Your task to perform on an android device: set default search engine in the chrome app Image 0: 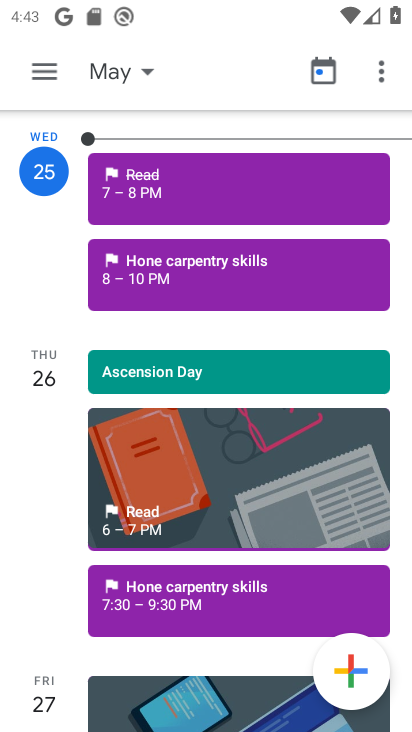
Step 0: press home button
Your task to perform on an android device: set default search engine in the chrome app Image 1: 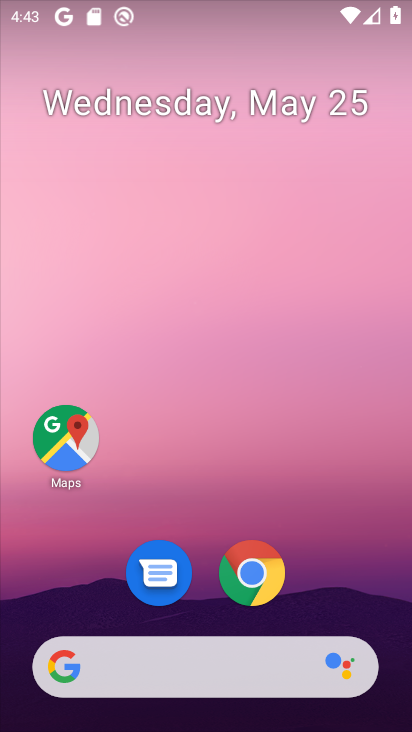
Step 1: click (254, 574)
Your task to perform on an android device: set default search engine in the chrome app Image 2: 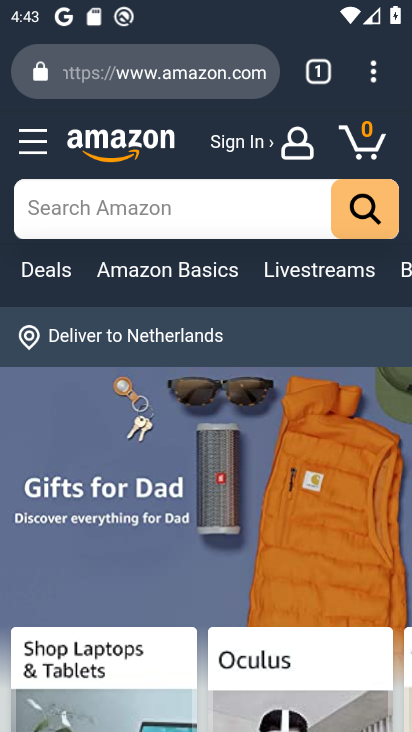
Step 2: click (374, 79)
Your task to perform on an android device: set default search engine in the chrome app Image 3: 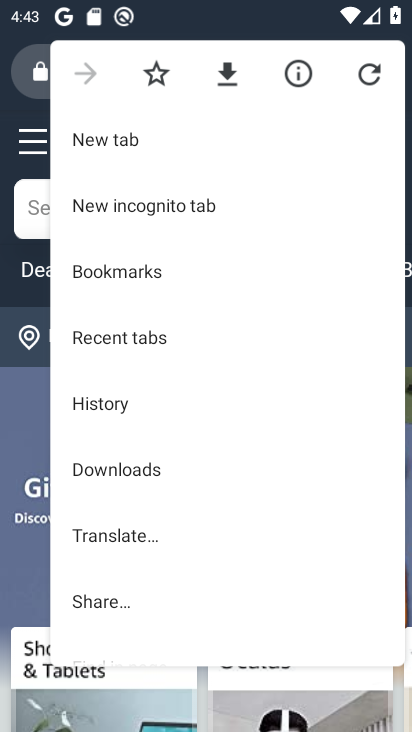
Step 3: drag from (126, 613) to (142, 371)
Your task to perform on an android device: set default search engine in the chrome app Image 4: 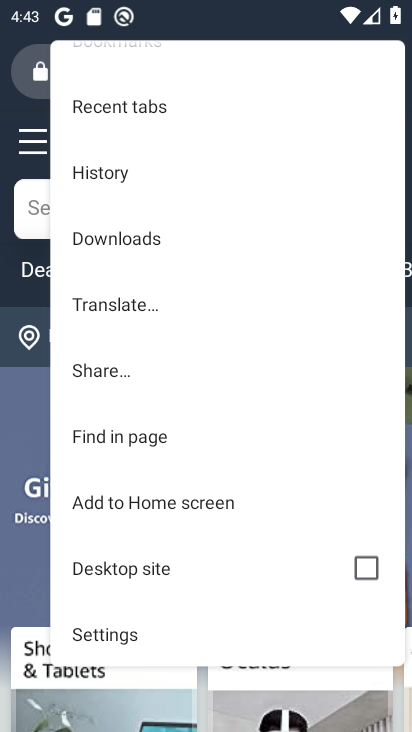
Step 4: click (114, 629)
Your task to perform on an android device: set default search engine in the chrome app Image 5: 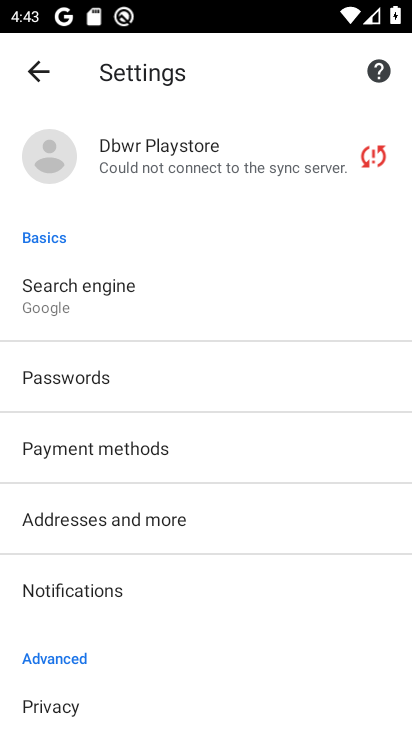
Step 5: click (101, 295)
Your task to perform on an android device: set default search engine in the chrome app Image 6: 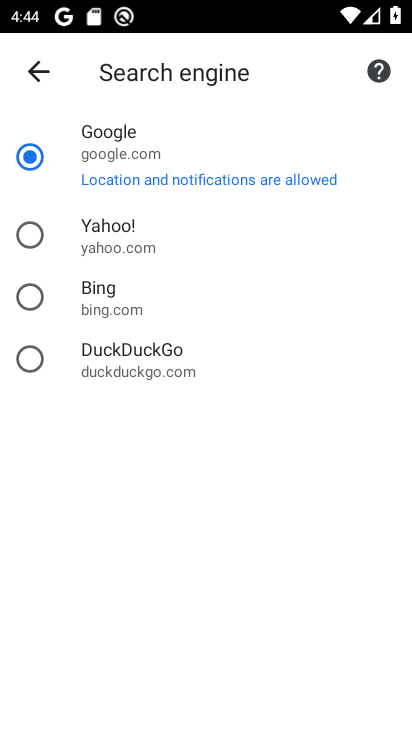
Step 6: click (22, 231)
Your task to perform on an android device: set default search engine in the chrome app Image 7: 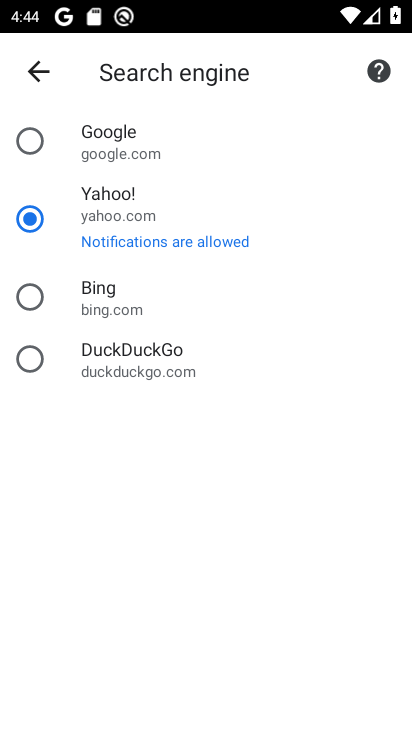
Step 7: task complete